Your task to perform on an android device: Search for the new Jordans on Nike.com Image 0: 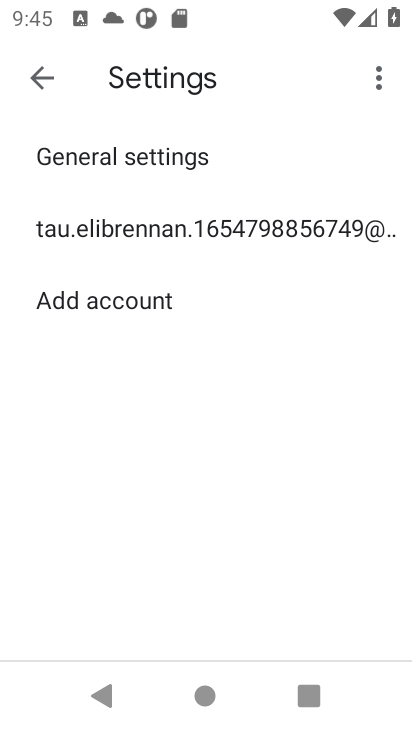
Step 0: press home button
Your task to perform on an android device: Search for the new Jordans on Nike.com Image 1: 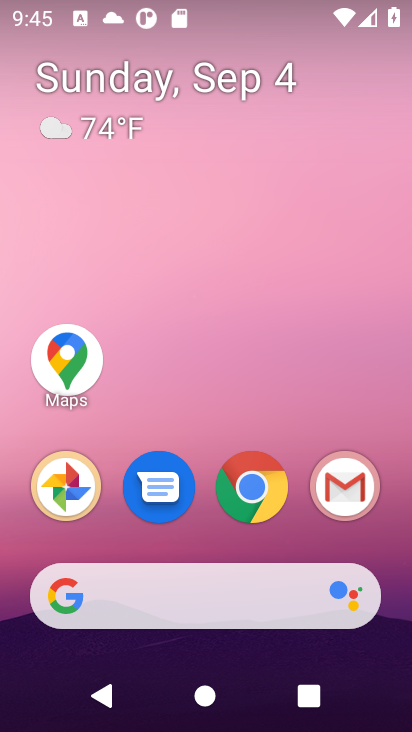
Step 1: click (240, 588)
Your task to perform on an android device: Search for the new Jordans on Nike.com Image 2: 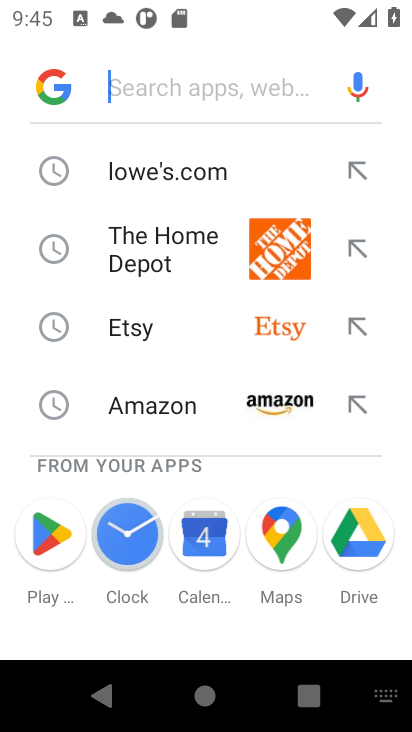
Step 2: type "Nike.com"
Your task to perform on an android device: Search for the new Jordans on Nike.com Image 3: 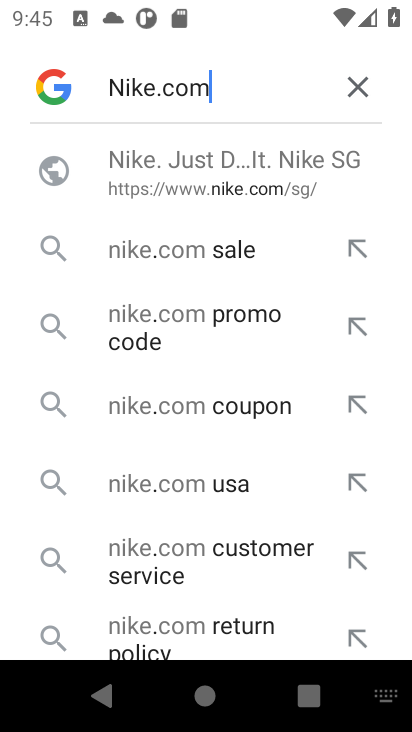
Step 3: click (260, 194)
Your task to perform on an android device: Search for the new Jordans on Nike.com Image 4: 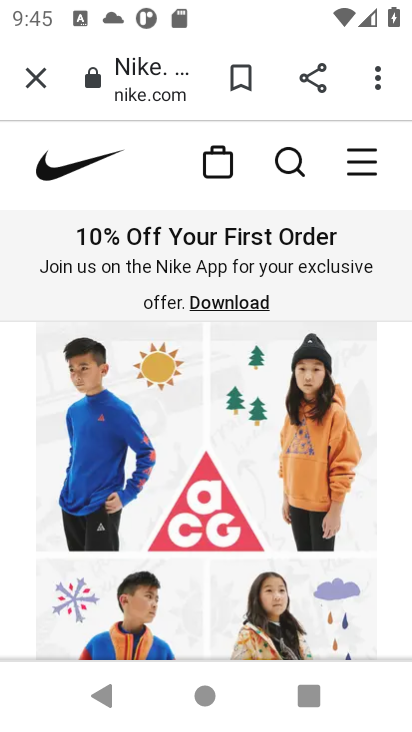
Step 4: click (287, 153)
Your task to perform on an android device: Search for the new Jordans on Nike.com Image 5: 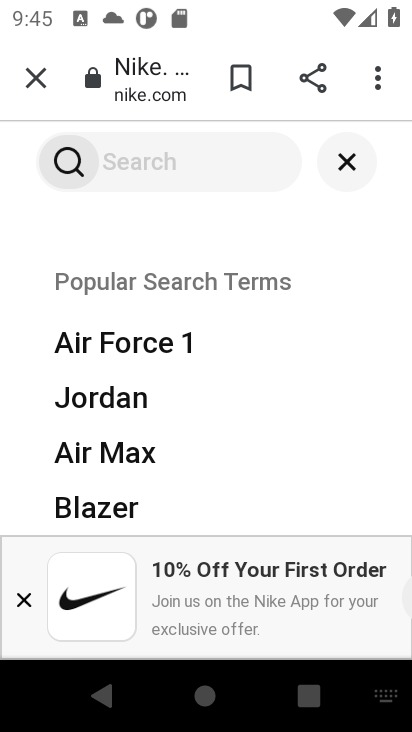
Step 5: click (112, 409)
Your task to perform on an android device: Search for the new Jordans on Nike.com Image 6: 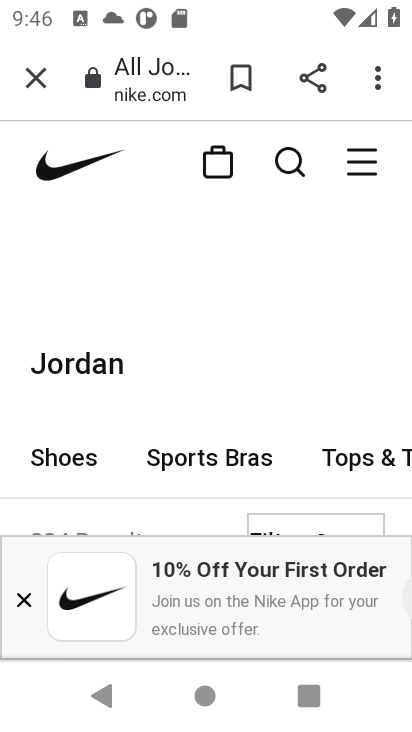
Step 6: task complete